Your task to perform on an android device: Go to ESPN.com Image 0: 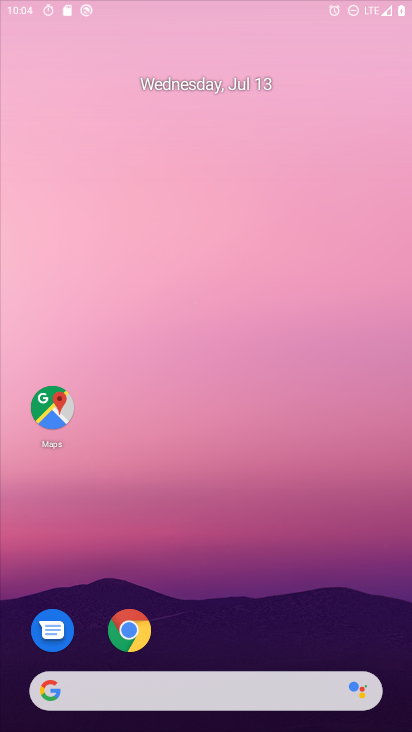
Step 0: drag from (382, 657) to (32, 109)
Your task to perform on an android device: Go to ESPN.com Image 1: 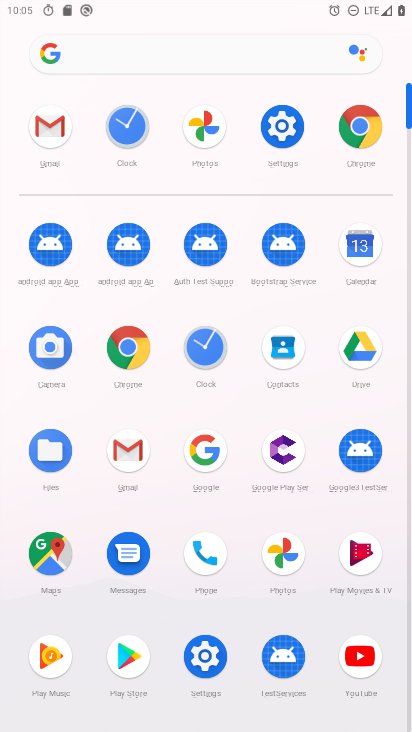
Step 1: click (212, 460)
Your task to perform on an android device: Go to ESPN.com Image 2: 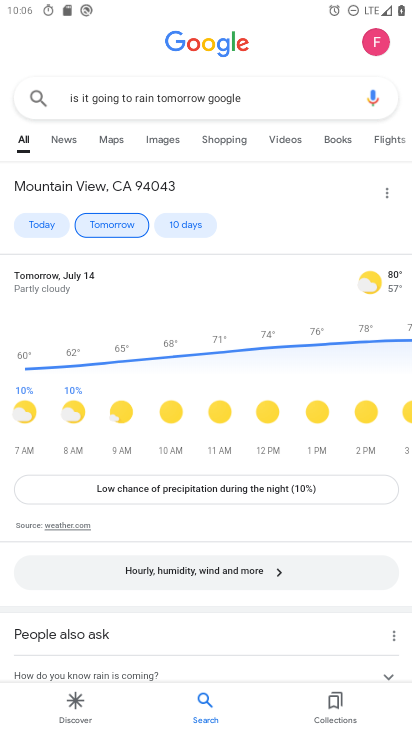
Step 2: press home button
Your task to perform on an android device: Go to ESPN.com Image 3: 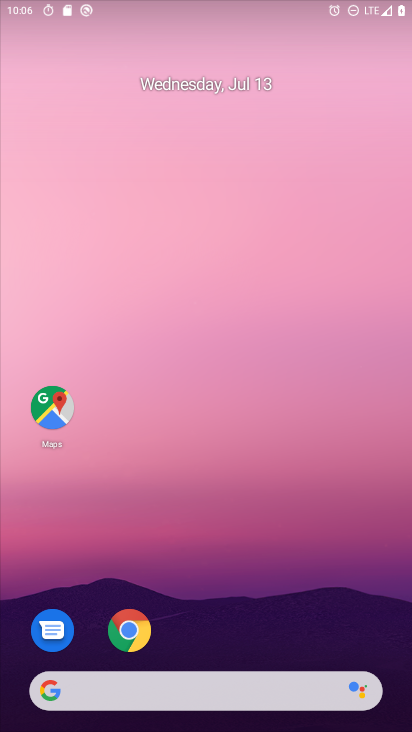
Step 3: drag from (348, 647) to (175, 56)
Your task to perform on an android device: Go to ESPN.com Image 4: 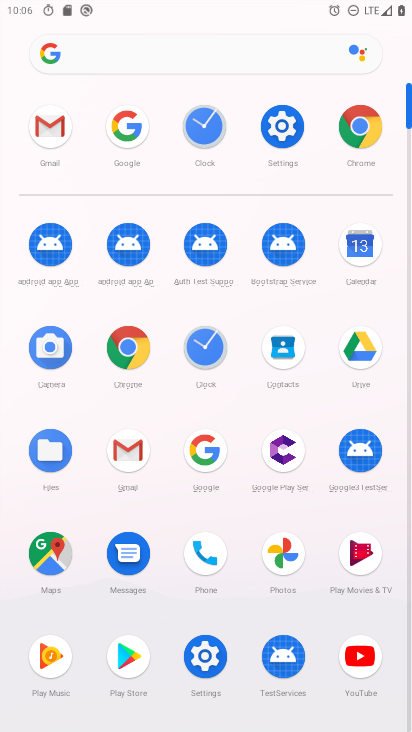
Step 4: click (190, 467)
Your task to perform on an android device: Go to ESPN.com Image 5: 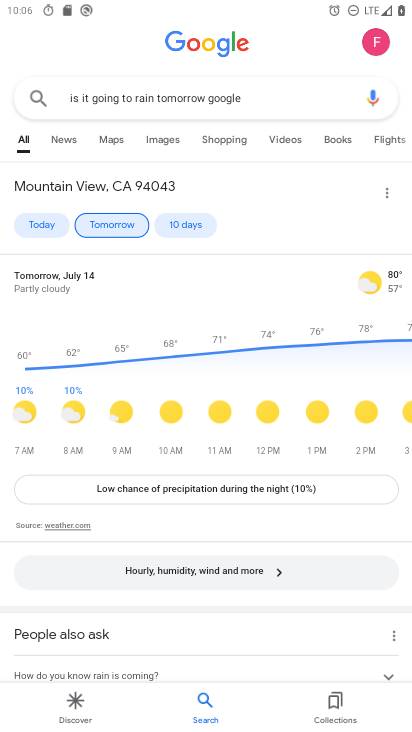
Step 5: press back button
Your task to perform on an android device: Go to ESPN.com Image 6: 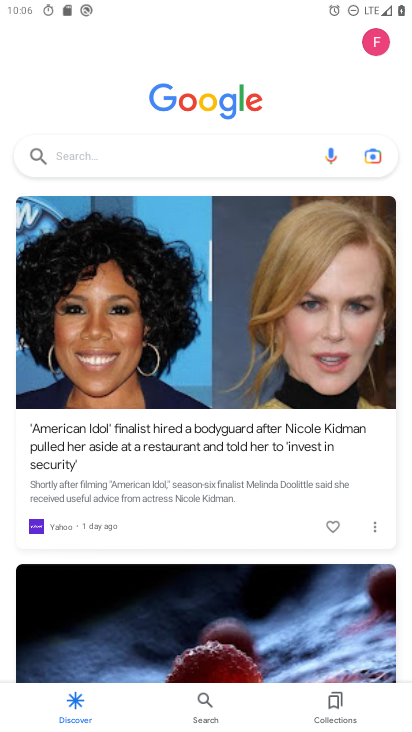
Step 6: click (146, 156)
Your task to perform on an android device: Go to ESPN.com Image 7: 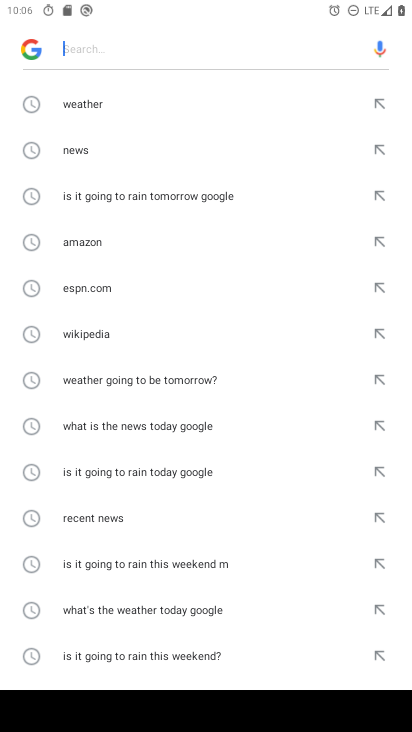
Step 7: click (86, 297)
Your task to perform on an android device: Go to ESPN.com Image 8: 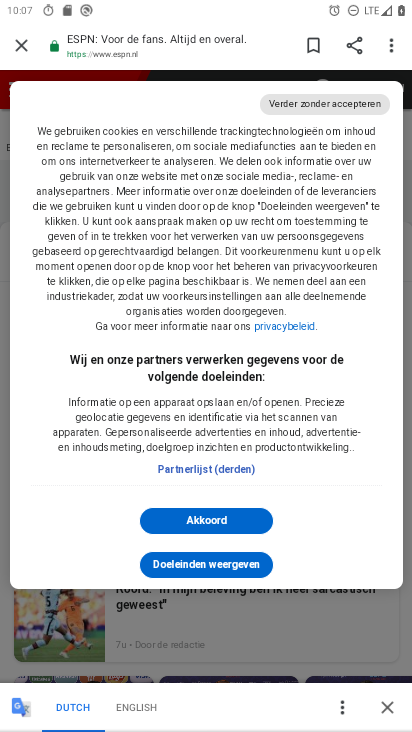
Step 8: task complete